Your task to perform on an android device: Do I have any events tomorrow? Image 0: 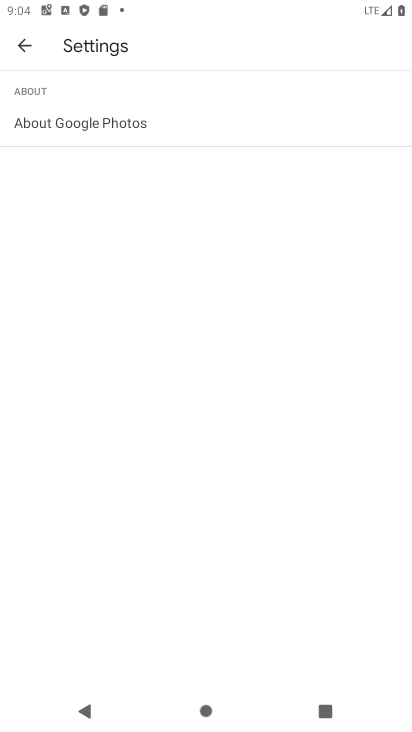
Step 0: press home button
Your task to perform on an android device: Do I have any events tomorrow? Image 1: 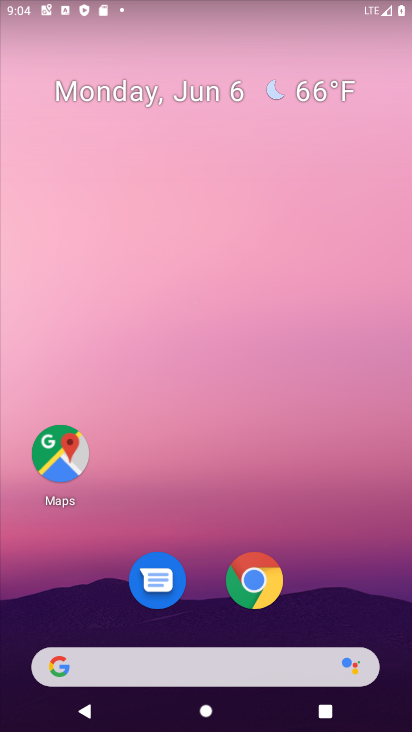
Step 1: drag from (335, 601) to (324, 0)
Your task to perform on an android device: Do I have any events tomorrow? Image 2: 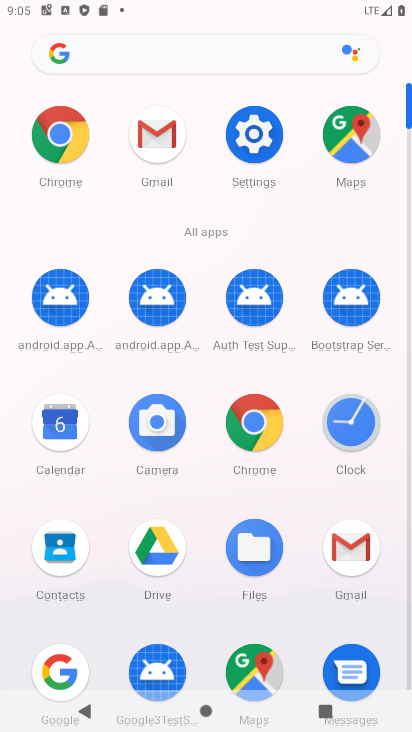
Step 2: click (53, 429)
Your task to perform on an android device: Do I have any events tomorrow? Image 3: 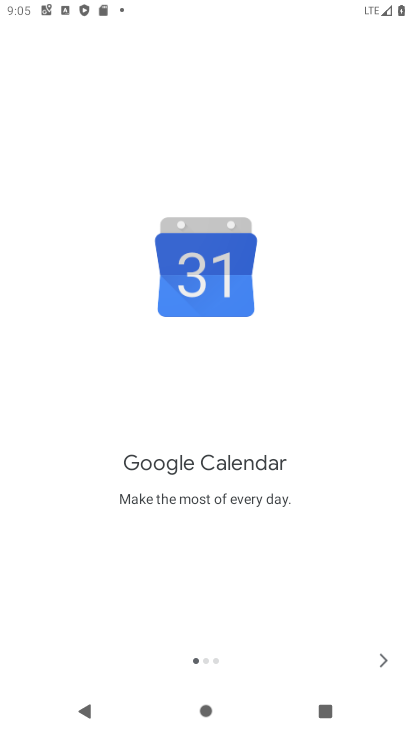
Step 3: click (392, 658)
Your task to perform on an android device: Do I have any events tomorrow? Image 4: 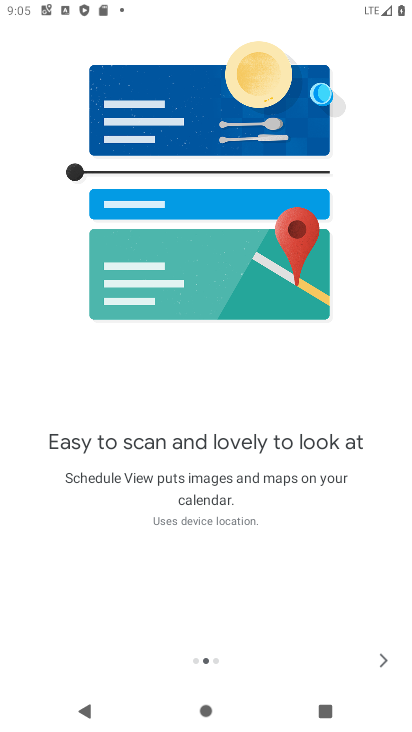
Step 4: click (392, 658)
Your task to perform on an android device: Do I have any events tomorrow? Image 5: 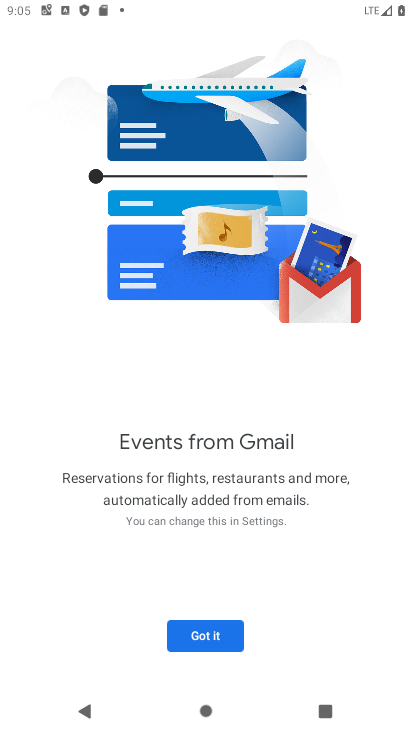
Step 5: click (224, 634)
Your task to perform on an android device: Do I have any events tomorrow? Image 6: 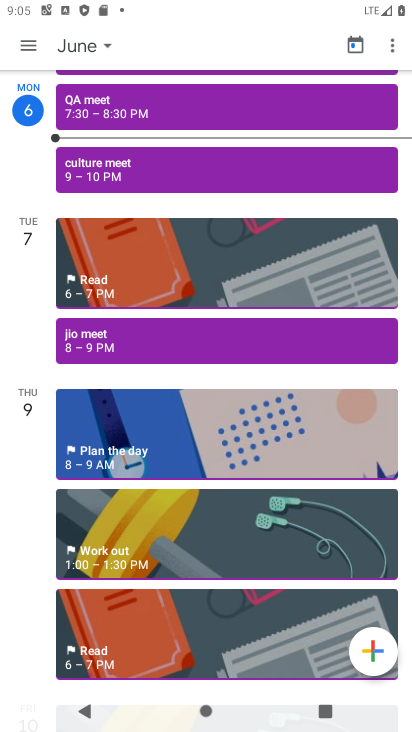
Step 6: click (87, 53)
Your task to perform on an android device: Do I have any events tomorrow? Image 7: 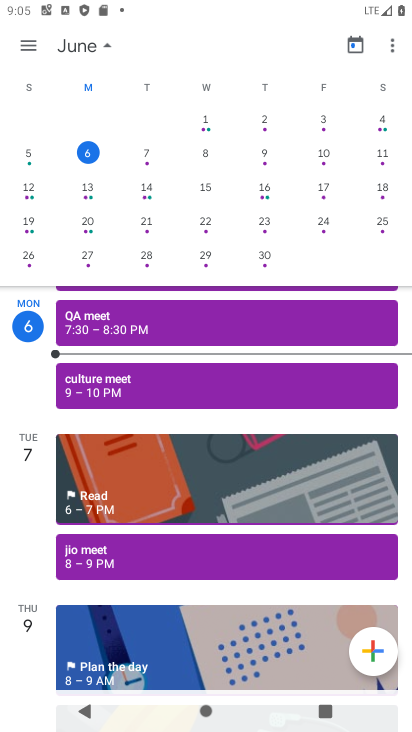
Step 7: click (141, 159)
Your task to perform on an android device: Do I have any events tomorrow? Image 8: 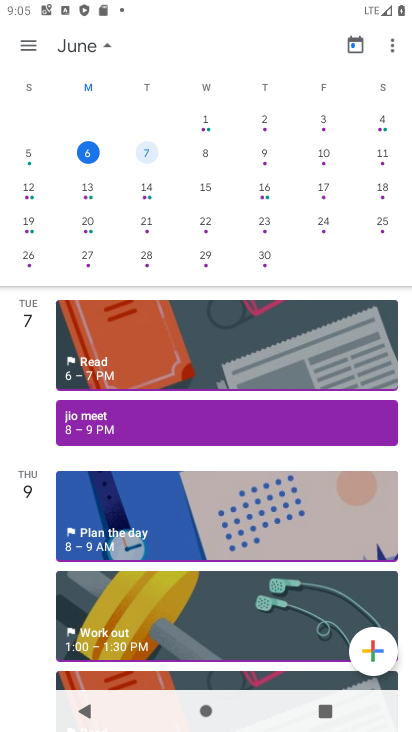
Step 8: task complete